Your task to perform on an android device: What's the weather going to be tomorrow? Image 0: 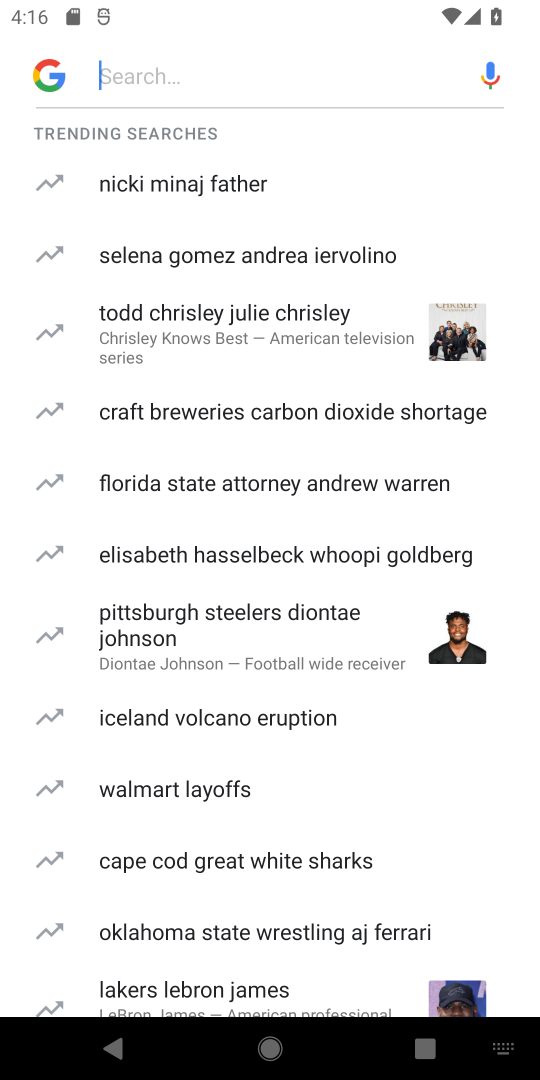
Step 0: press home button
Your task to perform on an android device: What's the weather going to be tomorrow? Image 1: 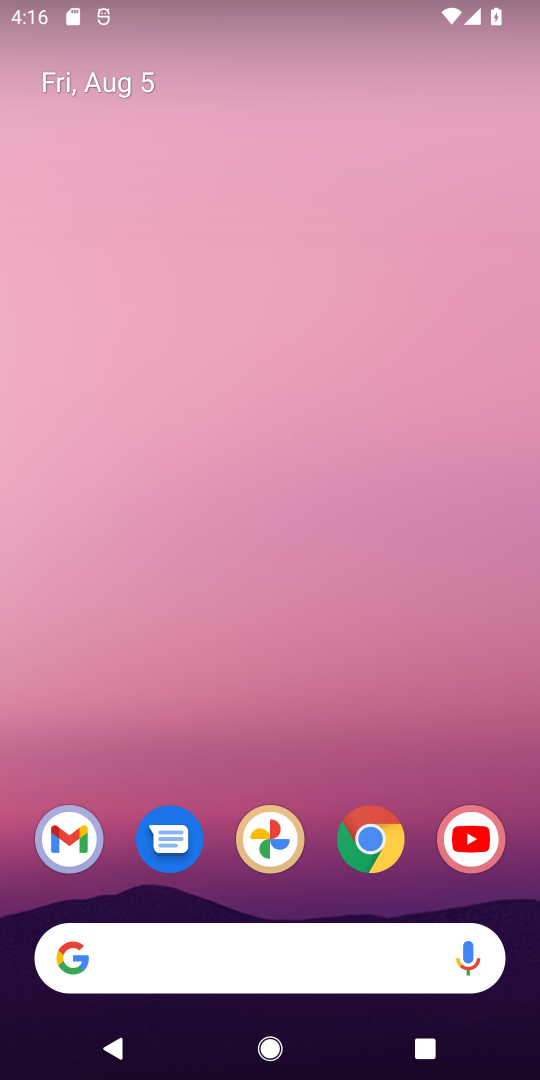
Step 1: drag from (290, 878) to (315, 298)
Your task to perform on an android device: What's the weather going to be tomorrow? Image 2: 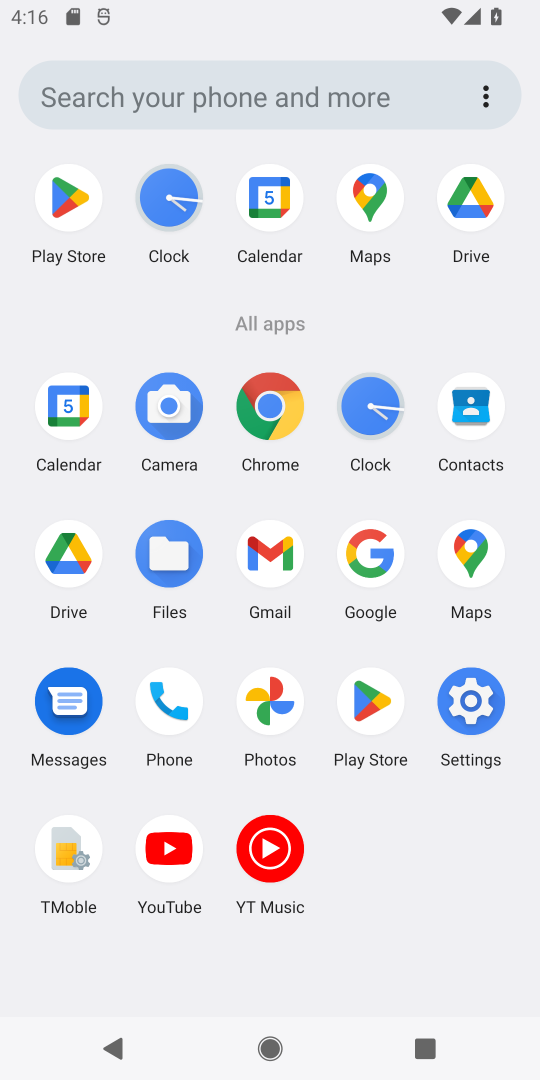
Step 2: click (360, 559)
Your task to perform on an android device: What's the weather going to be tomorrow? Image 3: 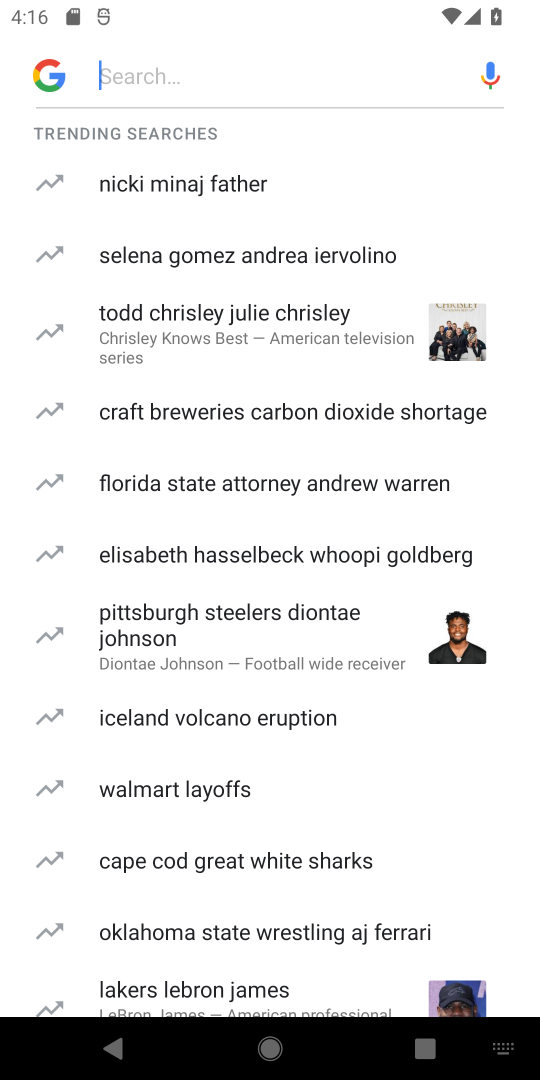
Step 3: click (148, 80)
Your task to perform on an android device: What's the weather going to be tomorrow? Image 4: 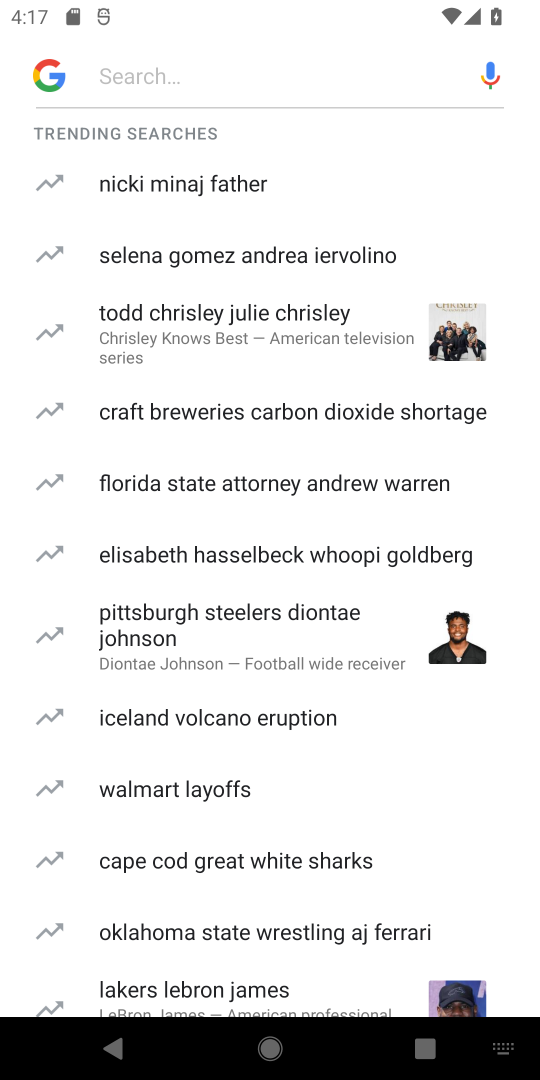
Step 4: type "weathe"
Your task to perform on an android device: What's the weather going to be tomorrow? Image 5: 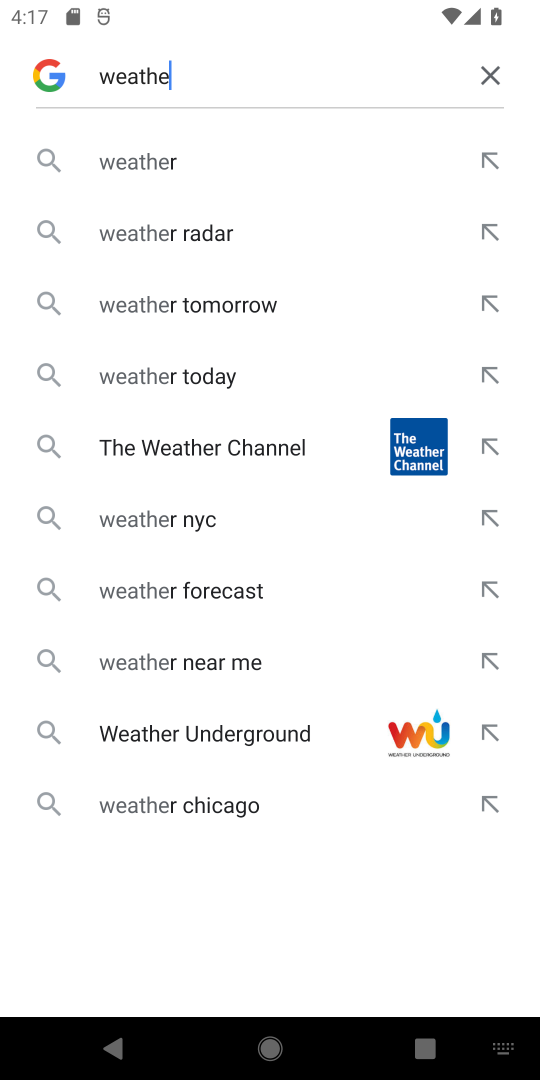
Step 5: click (127, 169)
Your task to perform on an android device: What's the weather going to be tomorrow? Image 6: 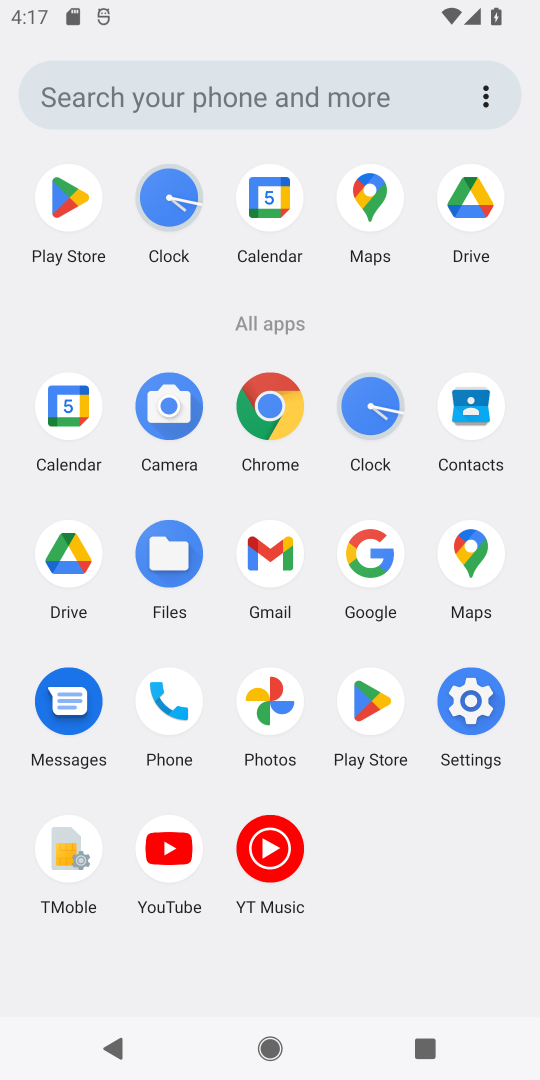
Step 6: click (360, 532)
Your task to perform on an android device: What's the weather going to be tomorrow? Image 7: 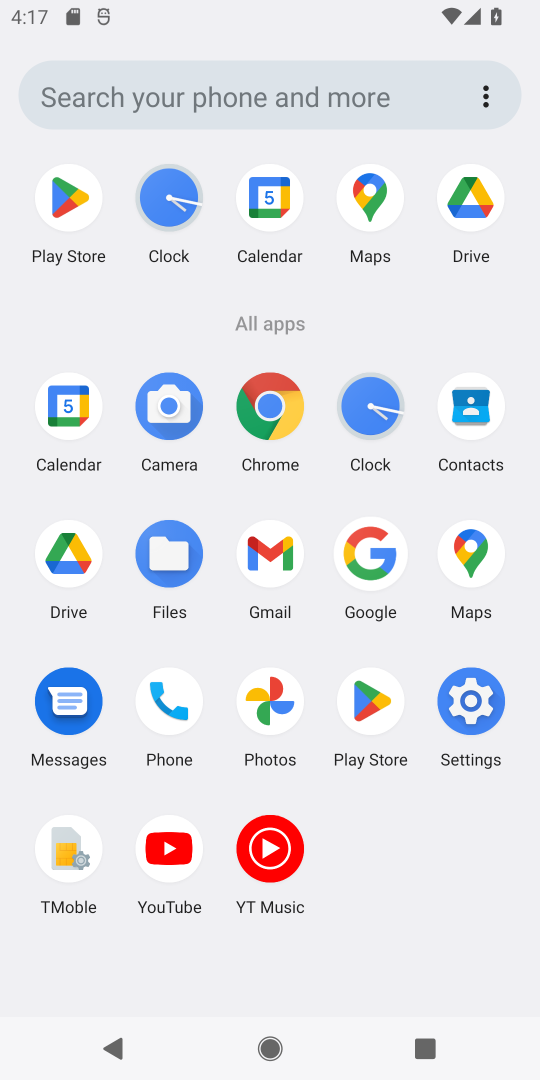
Step 7: click (369, 563)
Your task to perform on an android device: What's the weather going to be tomorrow? Image 8: 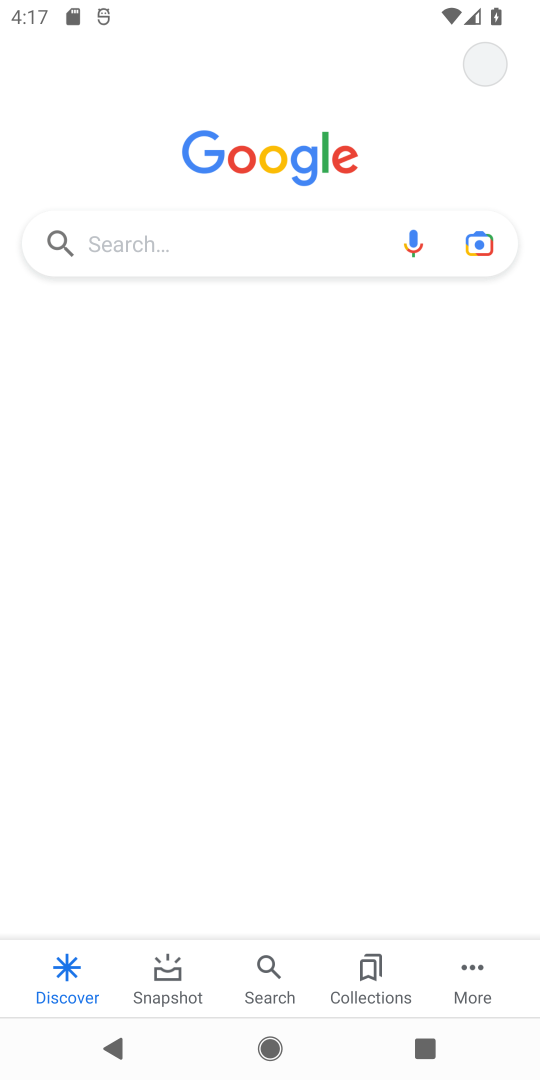
Step 8: click (146, 254)
Your task to perform on an android device: What's the weather going to be tomorrow? Image 9: 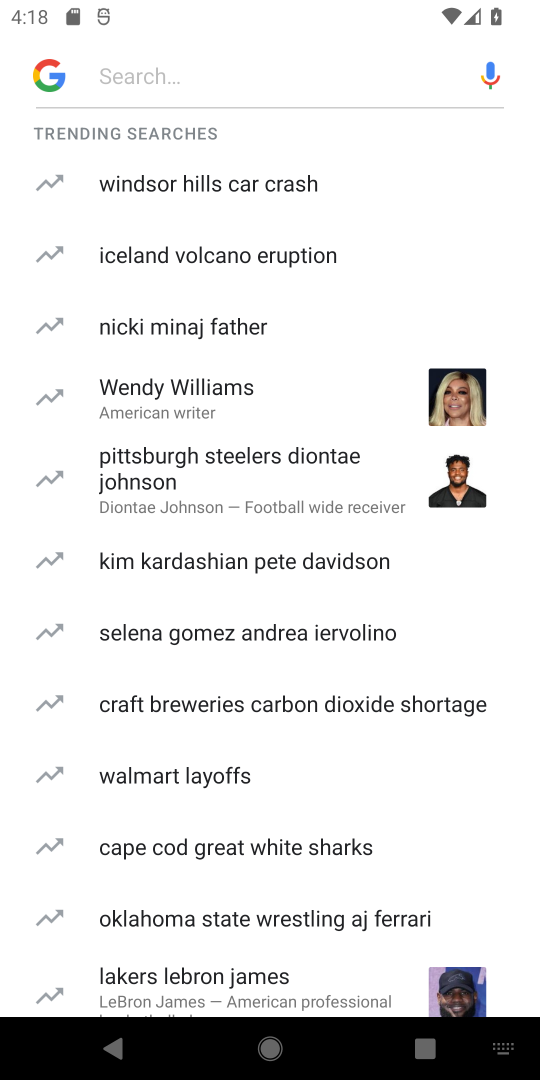
Step 9: type "weathe"
Your task to perform on an android device: What's the weather going to be tomorrow? Image 10: 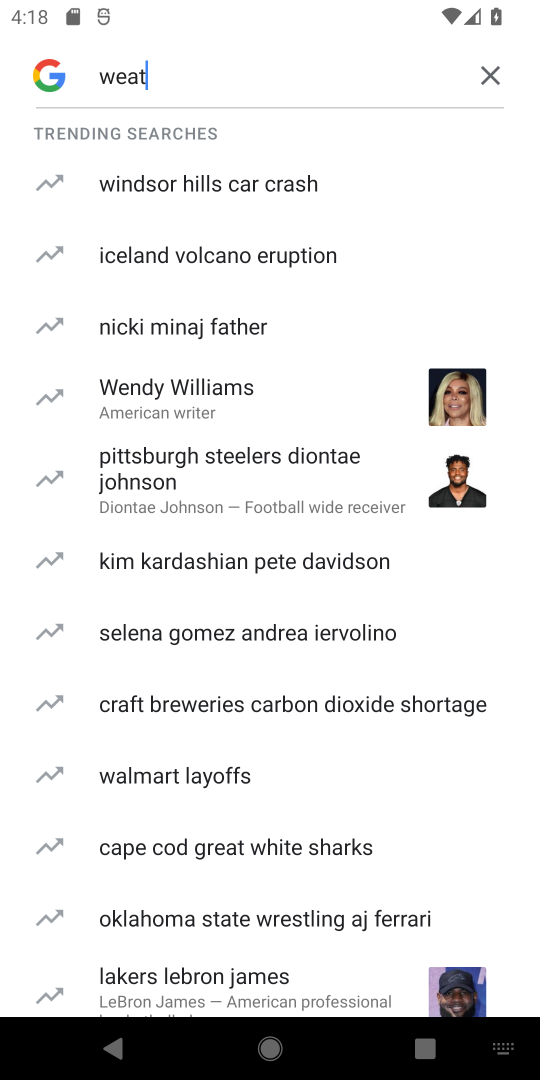
Step 10: type ""
Your task to perform on an android device: What's the weather going to be tomorrow? Image 11: 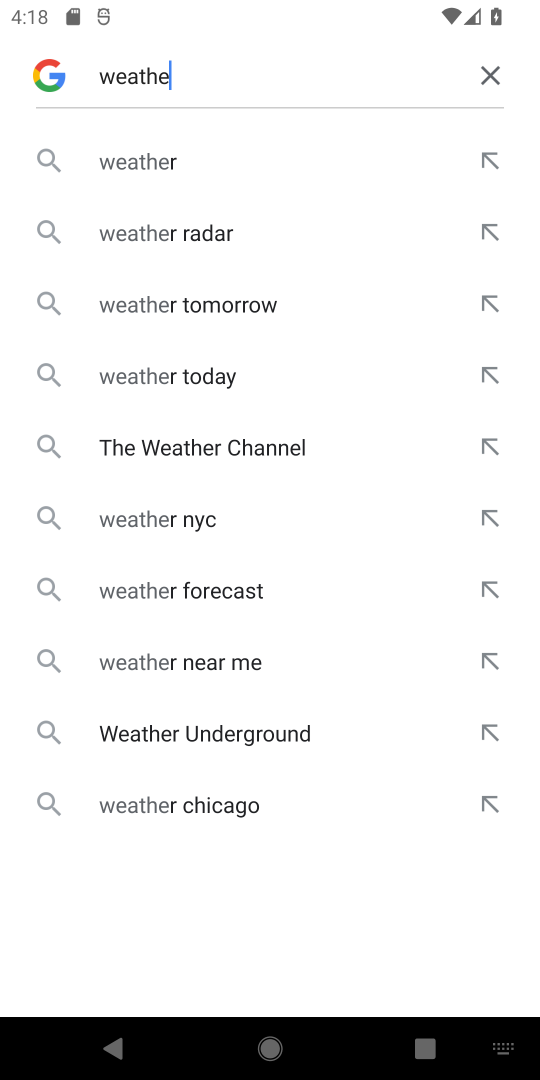
Step 11: click (194, 160)
Your task to perform on an android device: What's the weather going to be tomorrow? Image 12: 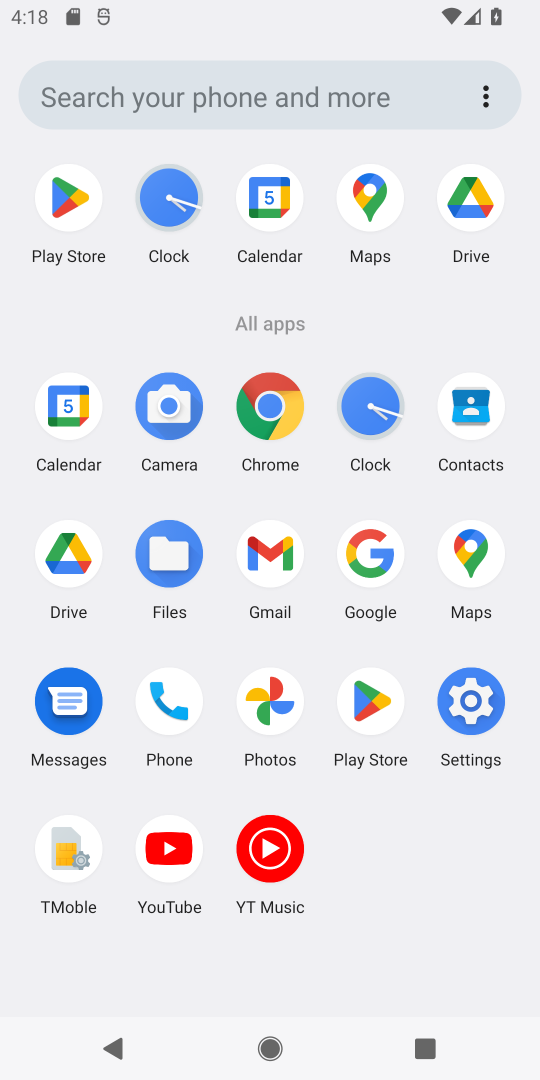
Step 12: task complete